Your task to perform on an android device: Open settings Image 0: 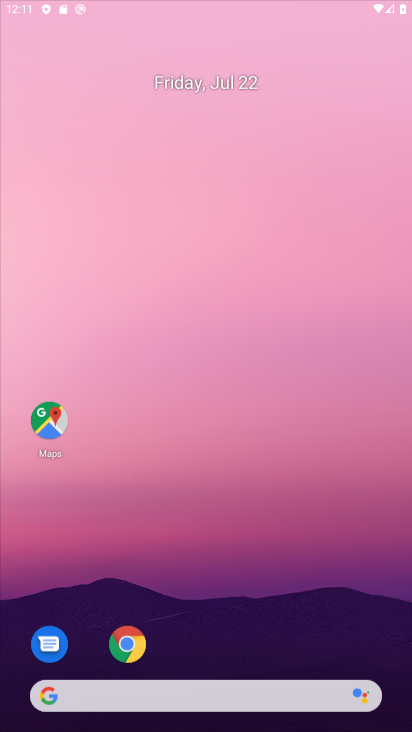
Step 0: click (356, 709)
Your task to perform on an android device: Open settings Image 1: 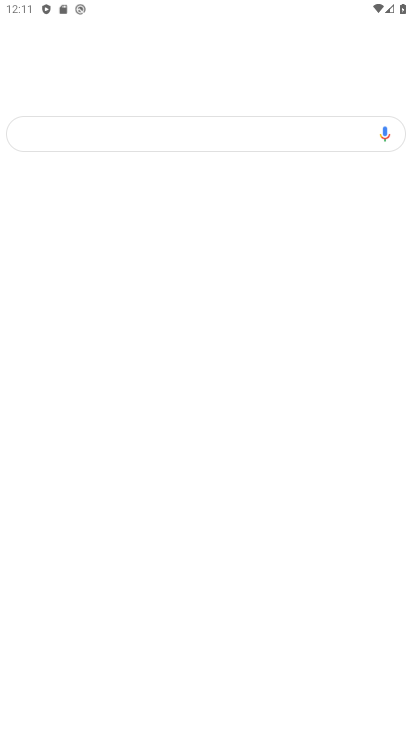
Step 1: drag from (349, 625) to (337, 153)
Your task to perform on an android device: Open settings Image 2: 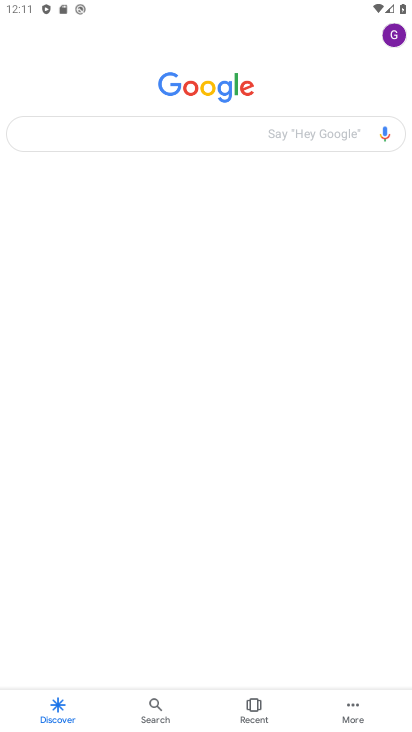
Step 2: press home button
Your task to perform on an android device: Open settings Image 3: 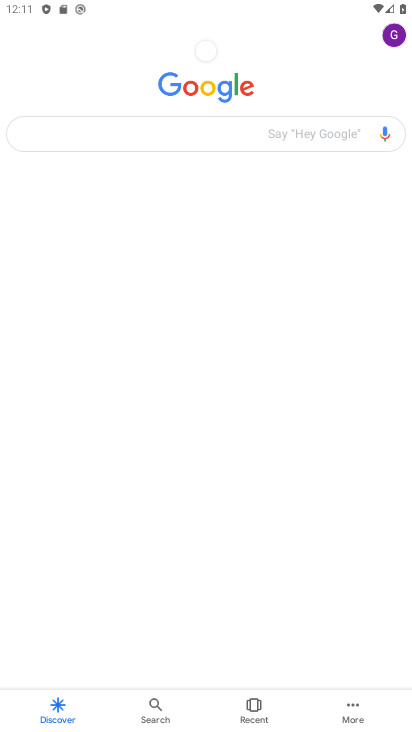
Step 3: press home button
Your task to perform on an android device: Open settings Image 4: 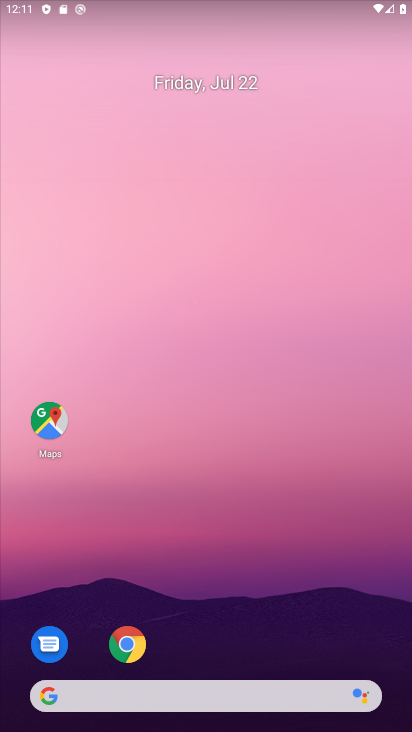
Step 4: drag from (180, 631) to (194, 392)
Your task to perform on an android device: Open settings Image 5: 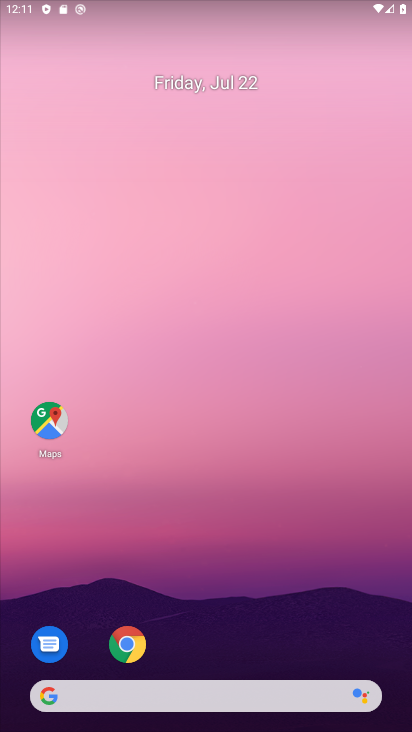
Step 5: drag from (205, 660) to (228, 232)
Your task to perform on an android device: Open settings Image 6: 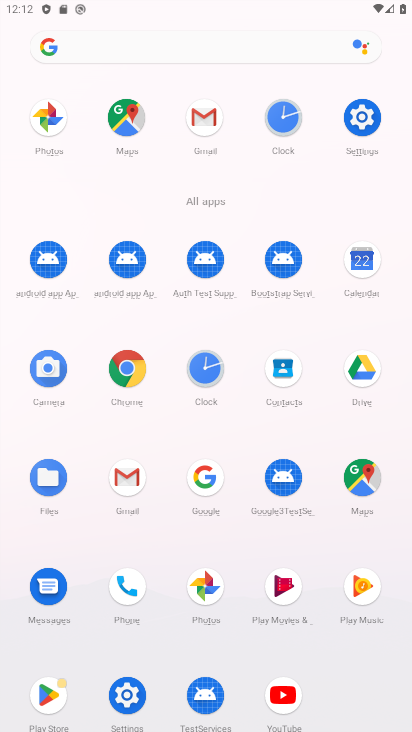
Step 6: click (122, 699)
Your task to perform on an android device: Open settings Image 7: 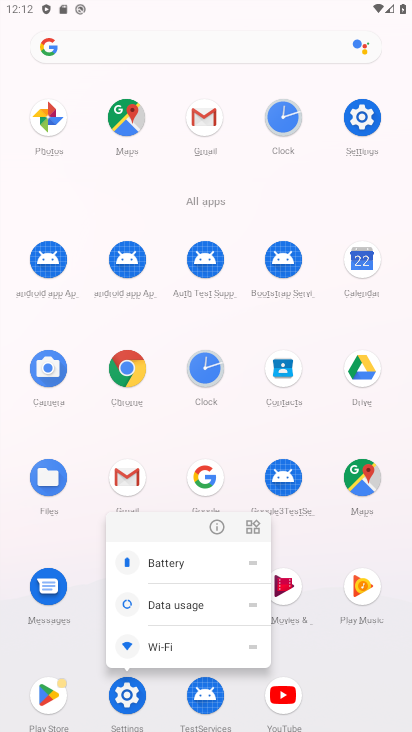
Step 7: click (216, 530)
Your task to perform on an android device: Open settings Image 8: 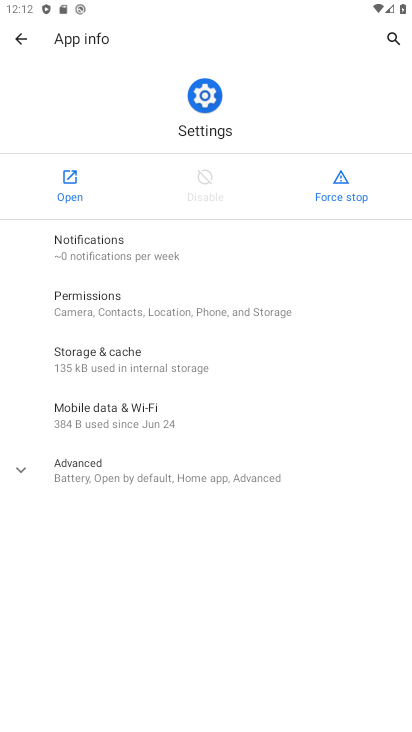
Step 8: click (76, 187)
Your task to perform on an android device: Open settings Image 9: 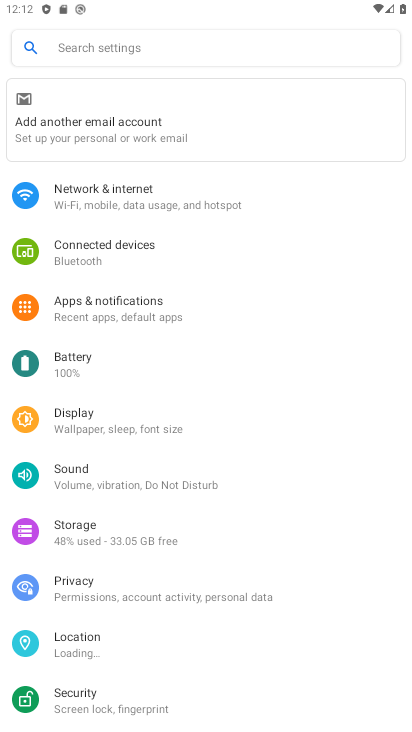
Step 9: task complete